Your task to perform on an android device: add a contact Image 0: 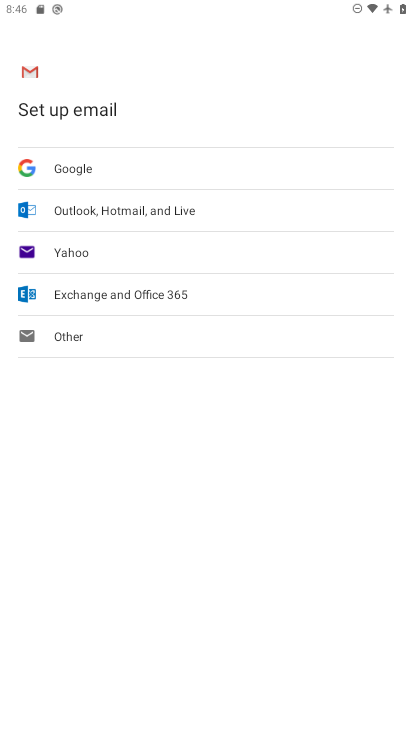
Step 0: press home button
Your task to perform on an android device: add a contact Image 1: 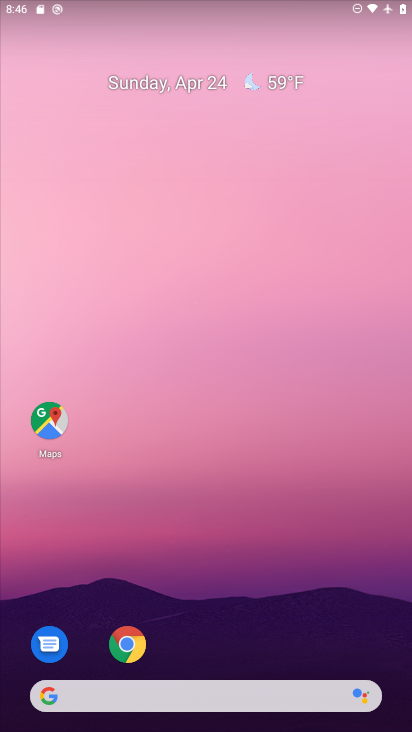
Step 1: drag from (206, 656) to (246, 133)
Your task to perform on an android device: add a contact Image 2: 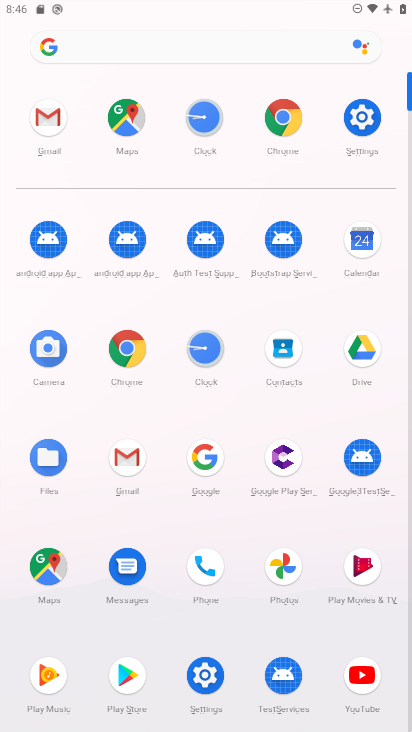
Step 2: click (284, 345)
Your task to perform on an android device: add a contact Image 3: 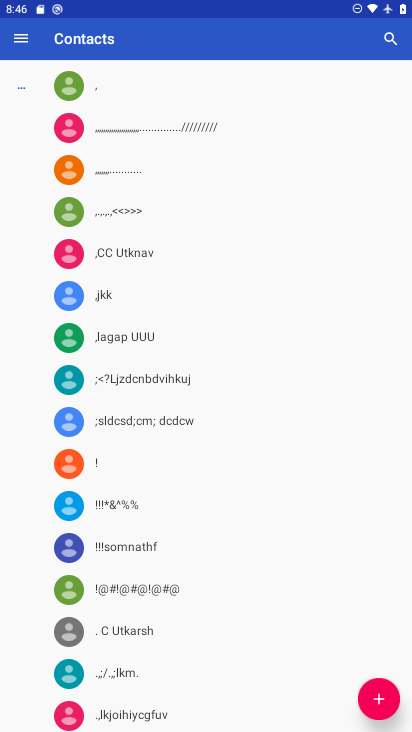
Step 3: click (374, 692)
Your task to perform on an android device: add a contact Image 4: 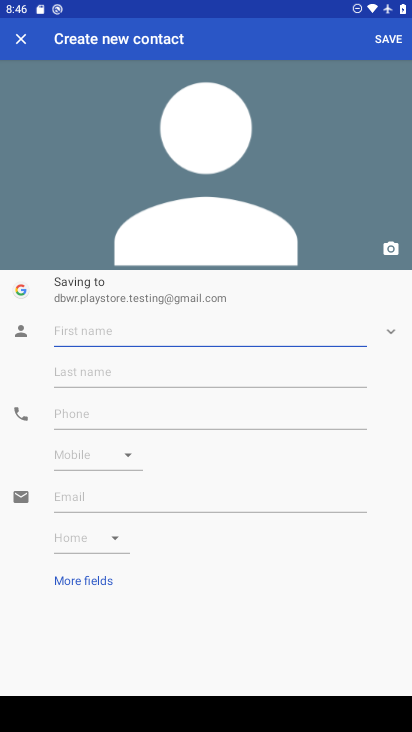
Step 4: click (151, 326)
Your task to perform on an android device: add a contact Image 5: 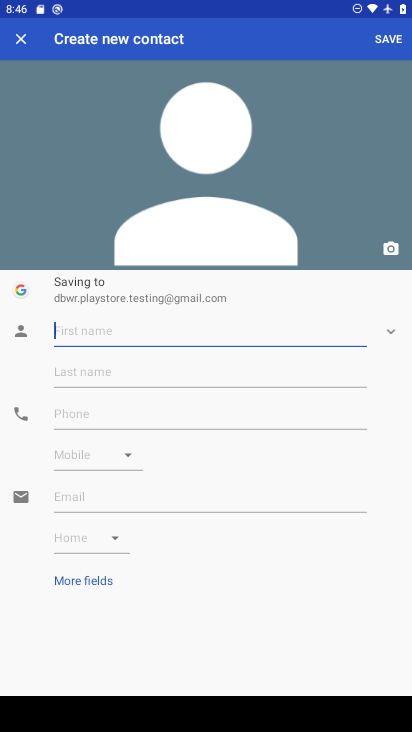
Step 5: type "dsfddhj"
Your task to perform on an android device: add a contact Image 6: 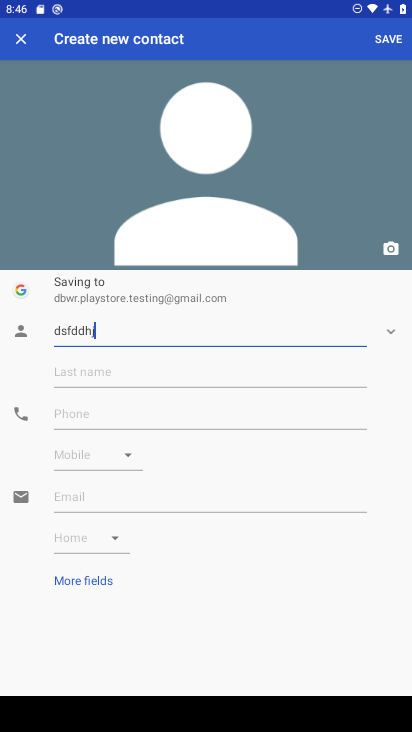
Step 6: click (385, 29)
Your task to perform on an android device: add a contact Image 7: 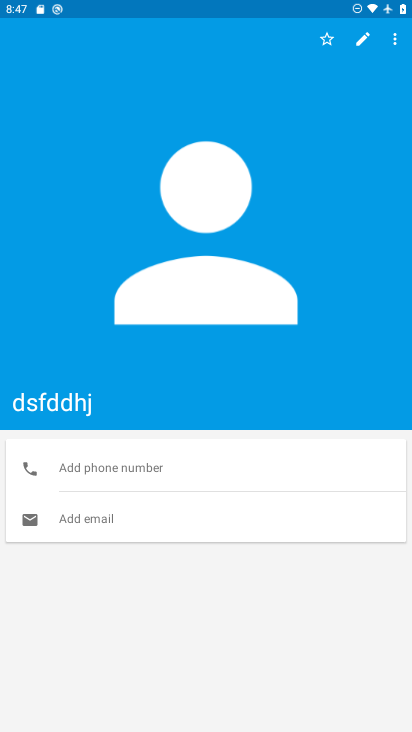
Step 7: task complete